Your task to perform on an android device: clear history in the chrome app Image 0: 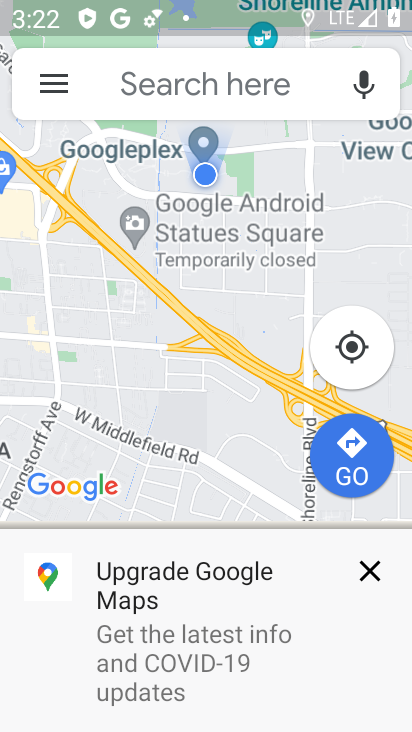
Step 0: press home button
Your task to perform on an android device: clear history in the chrome app Image 1: 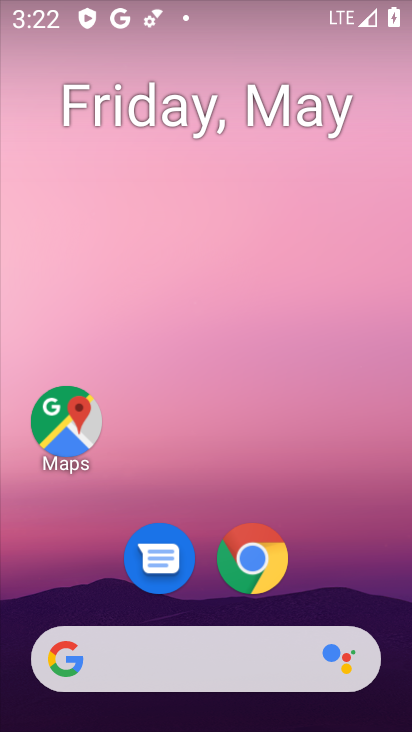
Step 1: click (247, 573)
Your task to perform on an android device: clear history in the chrome app Image 2: 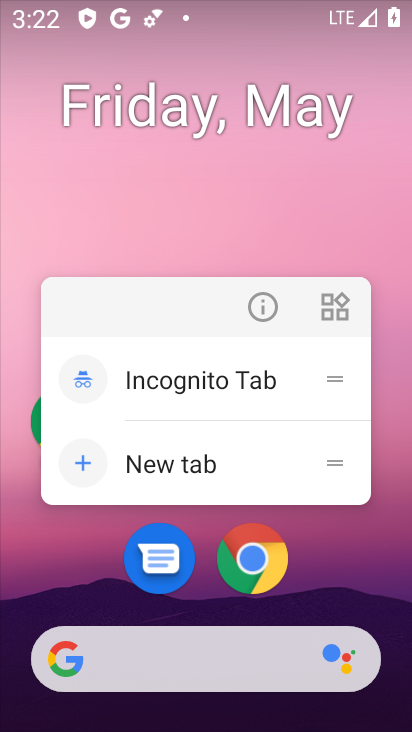
Step 2: click (248, 564)
Your task to perform on an android device: clear history in the chrome app Image 3: 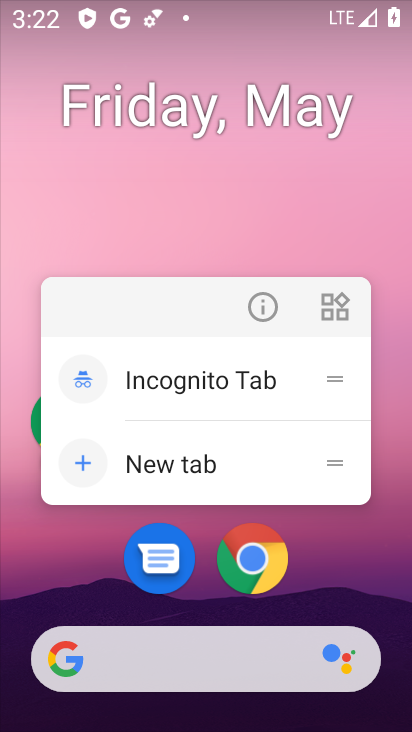
Step 3: click (252, 560)
Your task to perform on an android device: clear history in the chrome app Image 4: 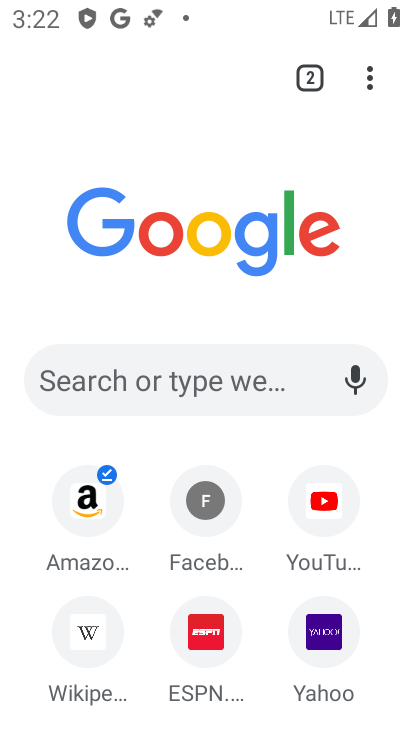
Step 4: drag from (369, 73) to (174, 451)
Your task to perform on an android device: clear history in the chrome app Image 5: 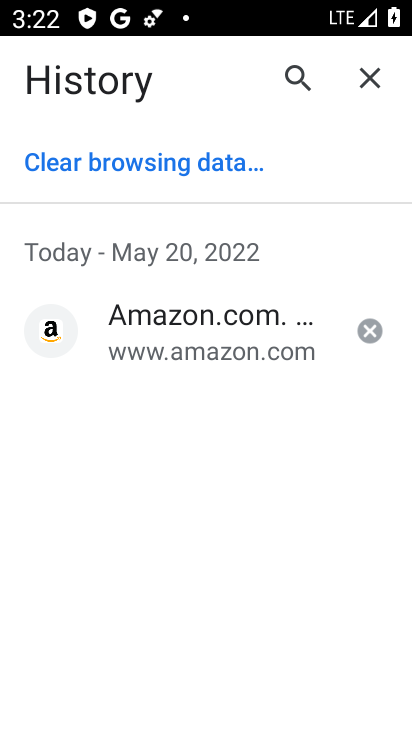
Step 5: click (139, 165)
Your task to perform on an android device: clear history in the chrome app Image 6: 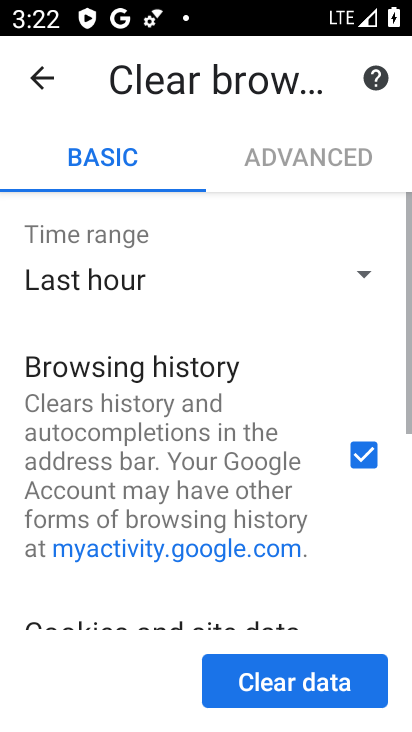
Step 6: drag from (272, 545) to (381, 166)
Your task to perform on an android device: clear history in the chrome app Image 7: 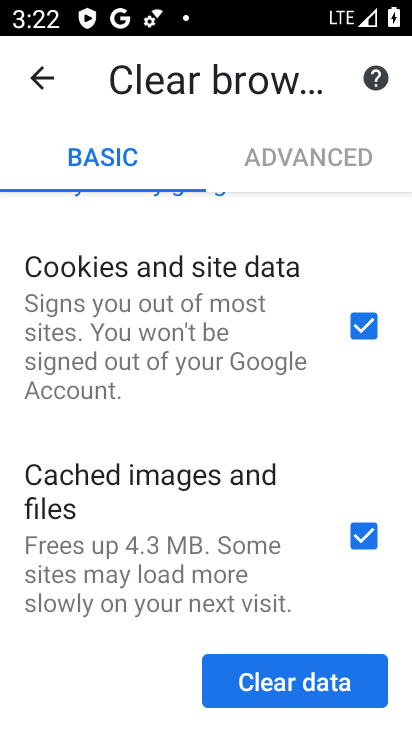
Step 7: click (290, 679)
Your task to perform on an android device: clear history in the chrome app Image 8: 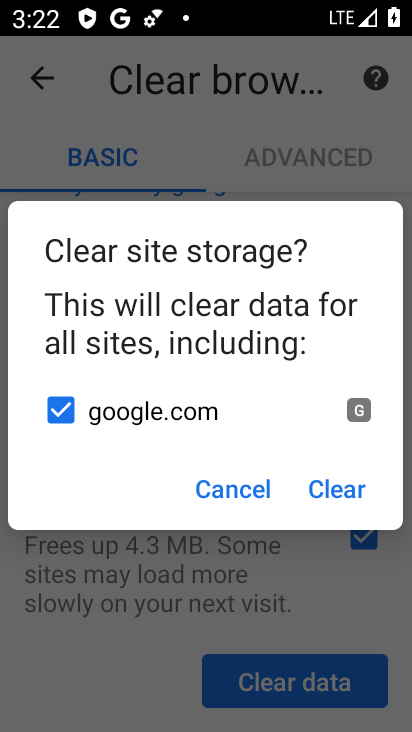
Step 8: click (326, 494)
Your task to perform on an android device: clear history in the chrome app Image 9: 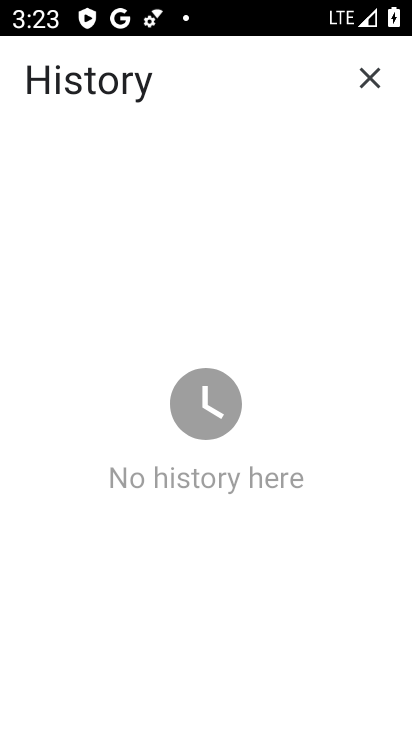
Step 9: task complete